Your task to perform on an android device: turn off picture-in-picture Image 0: 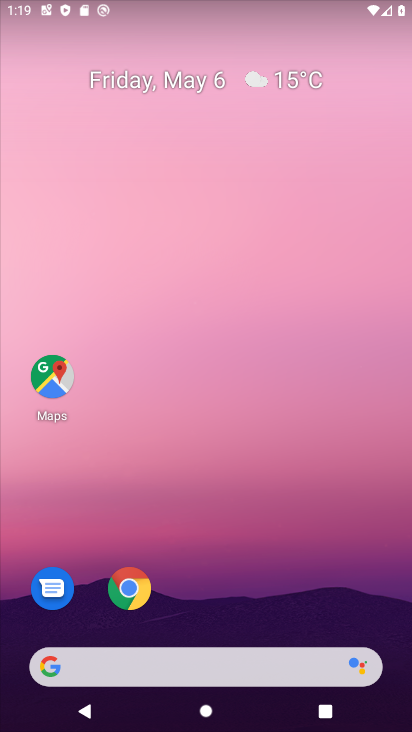
Step 0: click (368, 4)
Your task to perform on an android device: turn off picture-in-picture Image 1: 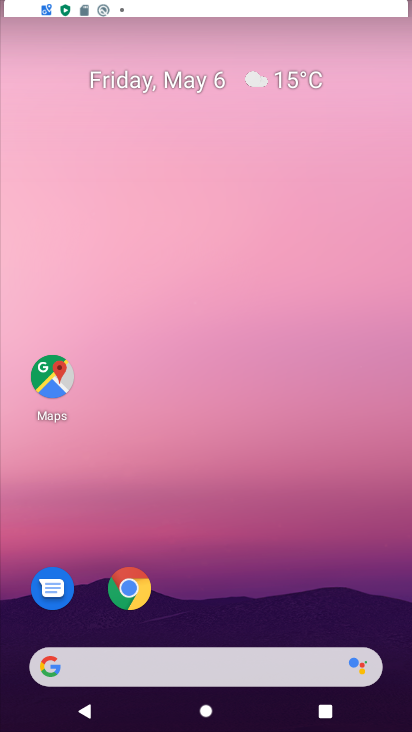
Step 1: drag from (221, 634) to (239, 247)
Your task to perform on an android device: turn off picture-in-picture Image 2: 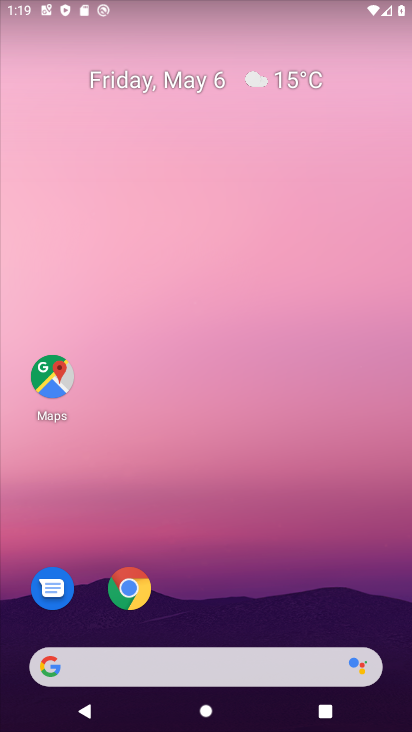
Step 2: drag from (184, 603) to (234, 243)
Your task to perform on an android device: turn off picture-in-picture Image 3: 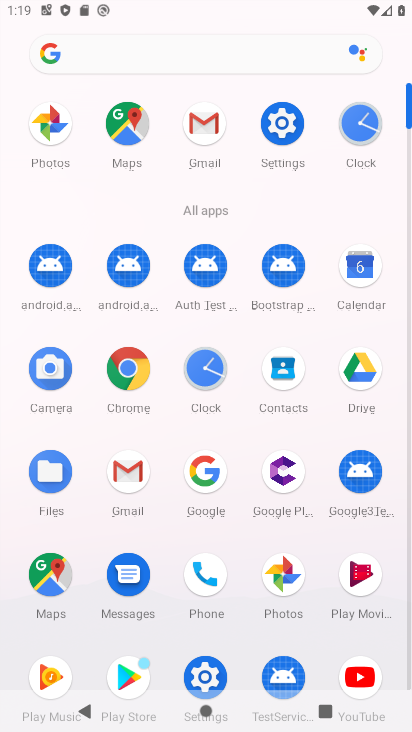
Step 3: click (208, 665)
Your task to perform on an android device: turn off picture-in-picture Image 4: 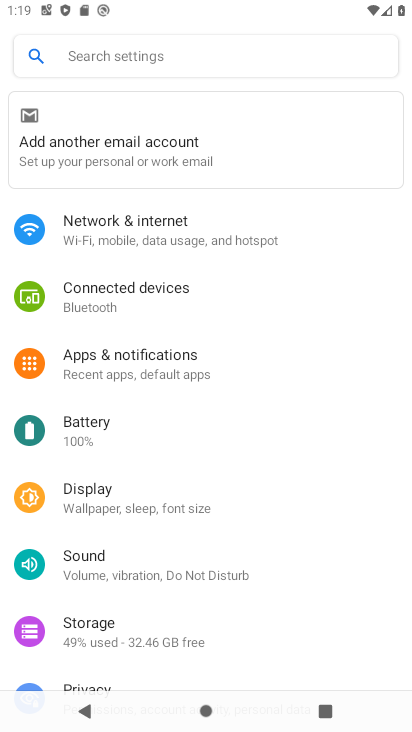
Step 4: drag from (266, 587) to (198, 249)
Your task to perform on an android device: turn off picture-in-picture Image 5: 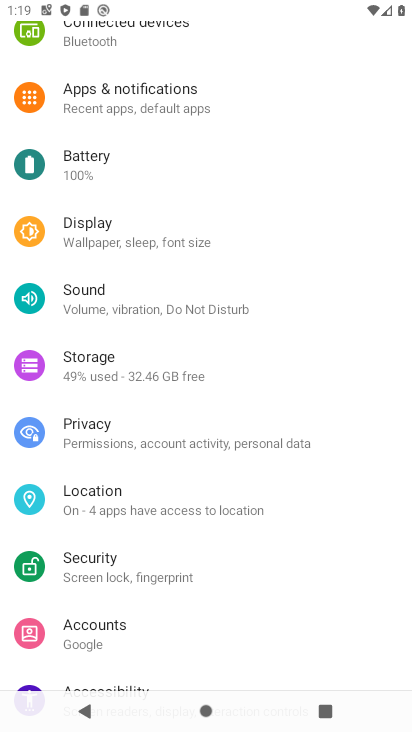
Step 5: drag from (142, 551) to (210, 92)
Your task to perform on an android device: turn off picture-in-picture Image 6: 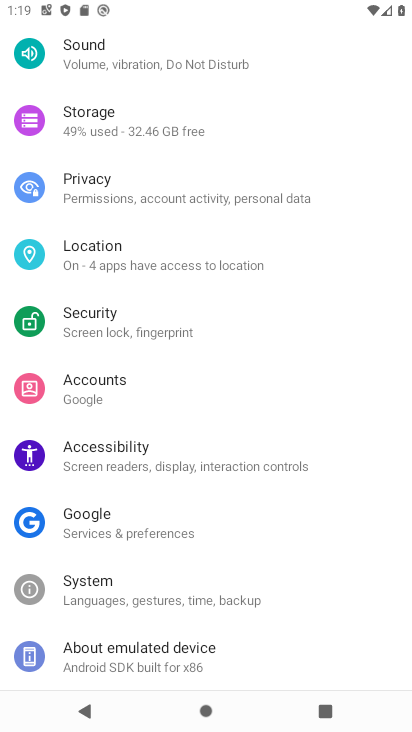
Step 6: drag from (132, 147) to (206, 716)
Your task to perform on an android device: turn off picture-in-picture Image 7: 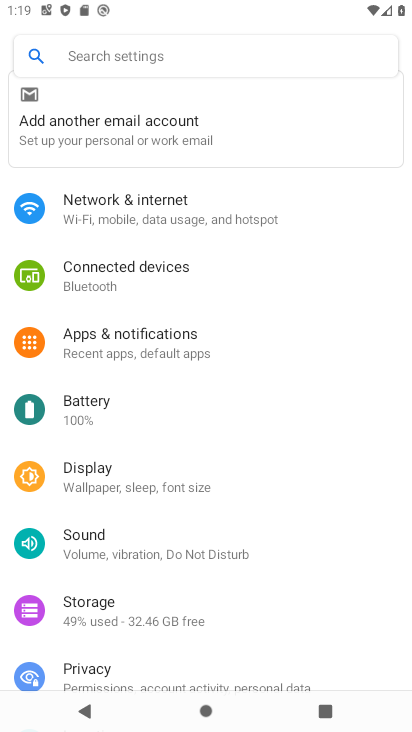
Step 7: click (136, 344)
Your task to perform on an android device: turn off picture-in-picture Image 8: 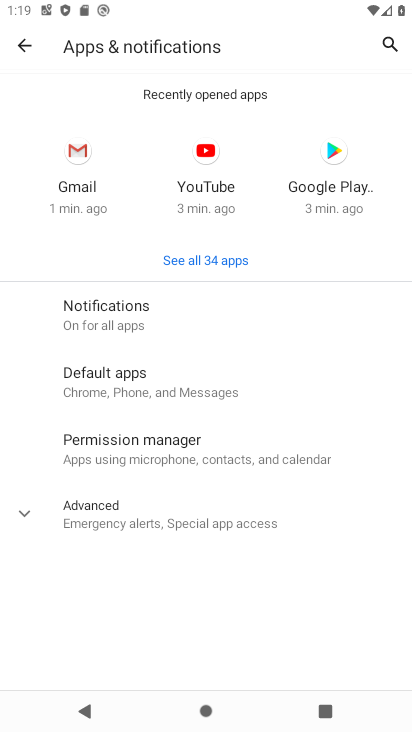
Step 8: click (136, 515)
Your task to perform on an android device: turn off picture-in-picture Image 9: 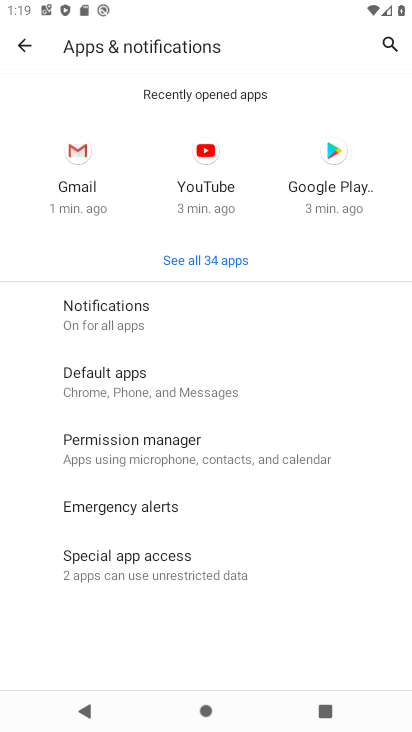
Step 9: click (146, 571)
Your task to perform on an android device: turn off picture-in-picture Image 10: 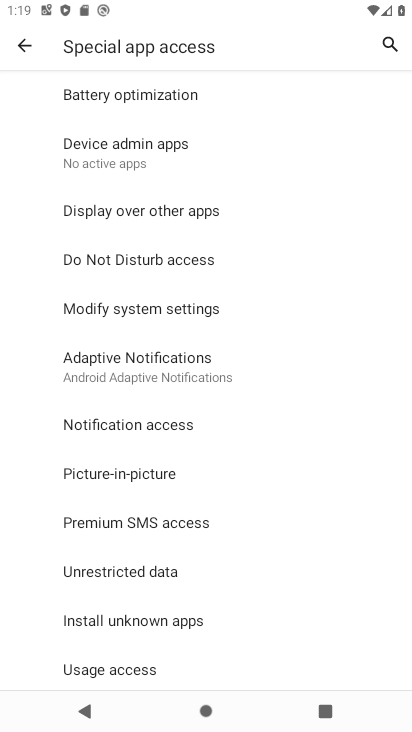
Step 10: click (140, 483)
Your task to perform on an android device: turn off picture-in-picture Image 11: 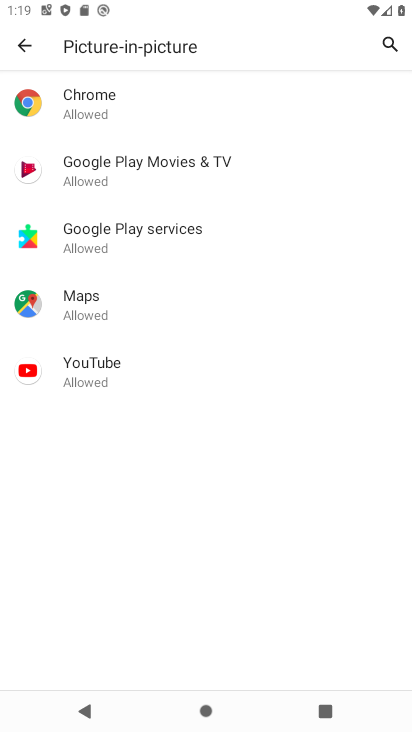
Step 11: task complete